Your task to perform on an android device: change the clock style Image 0: 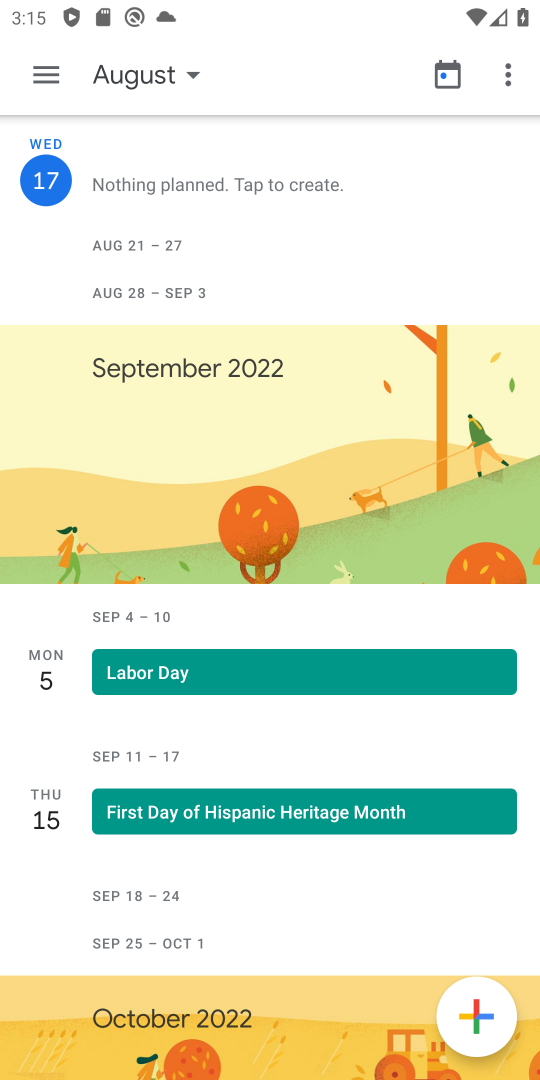
Step 0: press back button
Your task to perform on an android device: change the clock style Image 1: 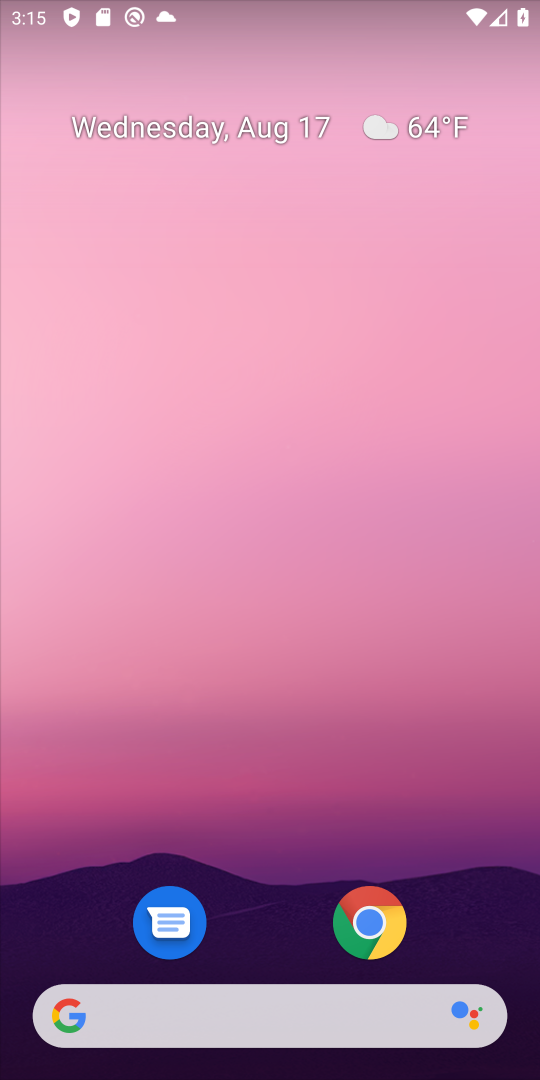
Step 1: drag from (80, 754) to (359, 119)
Your task to perform on an android device: change the clock style Image 2: 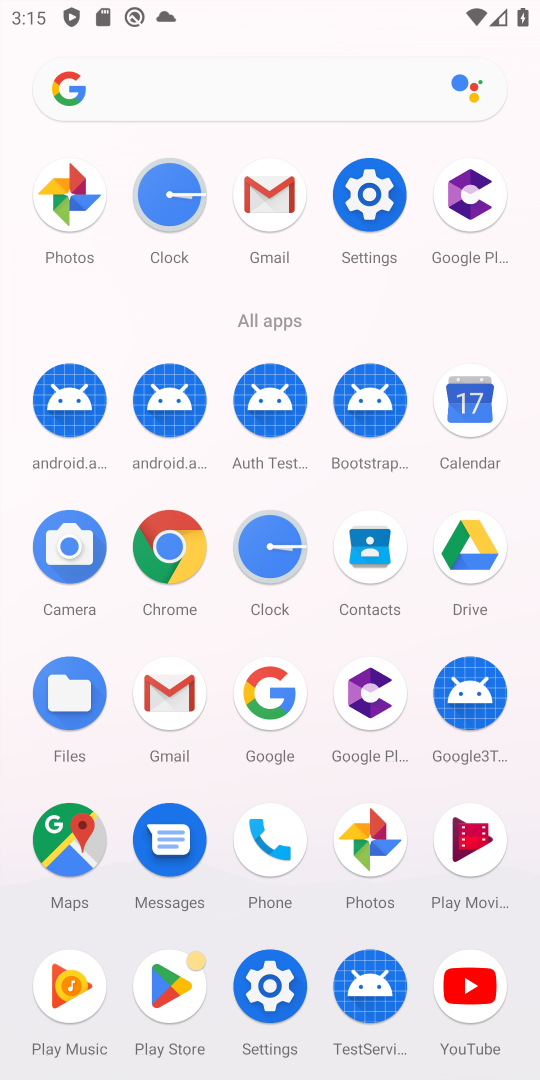
Step 2: click (263, 558)
Your task to perform on an android device: change the clock style Image 3: 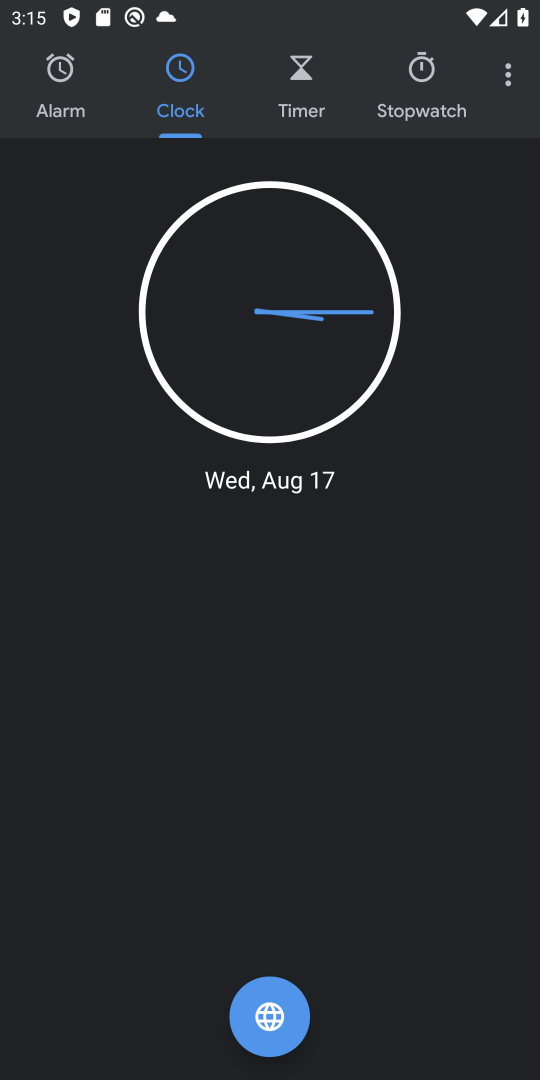
Step 3: click (516, 76)
Your task to perform on an android device: change the clock style Image 4: 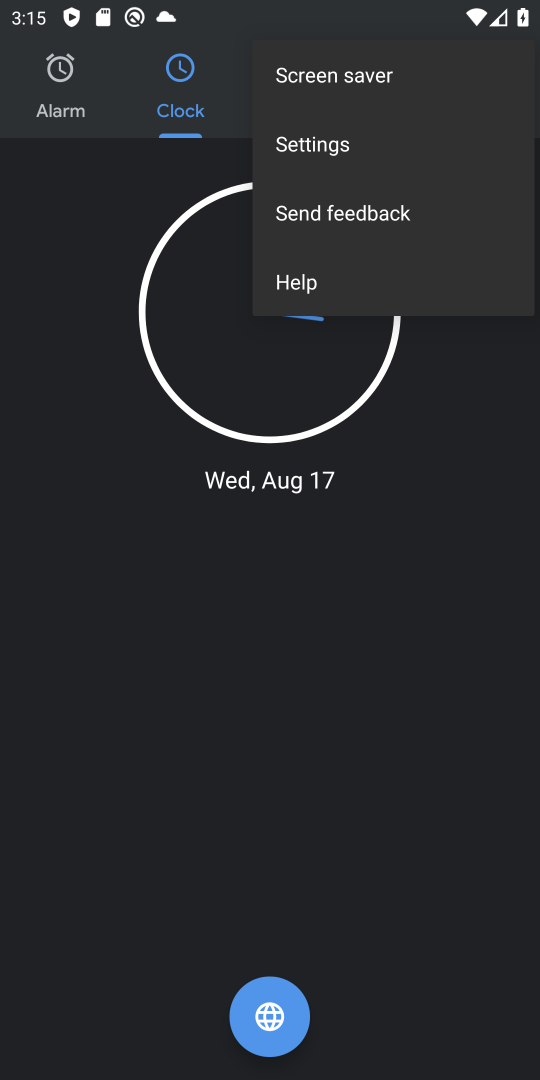
Step 4: click (305, 152)
Your task to perform on an android device: change the clock style Image 5: 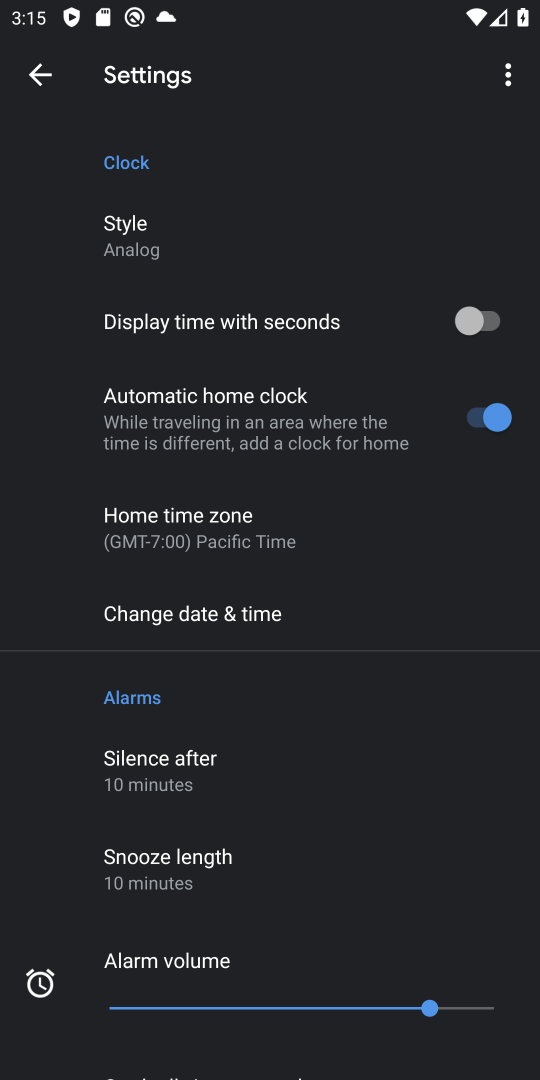
Step 5: click (142, 230)
Your task to perform on an android device: change the clock style Image 6: 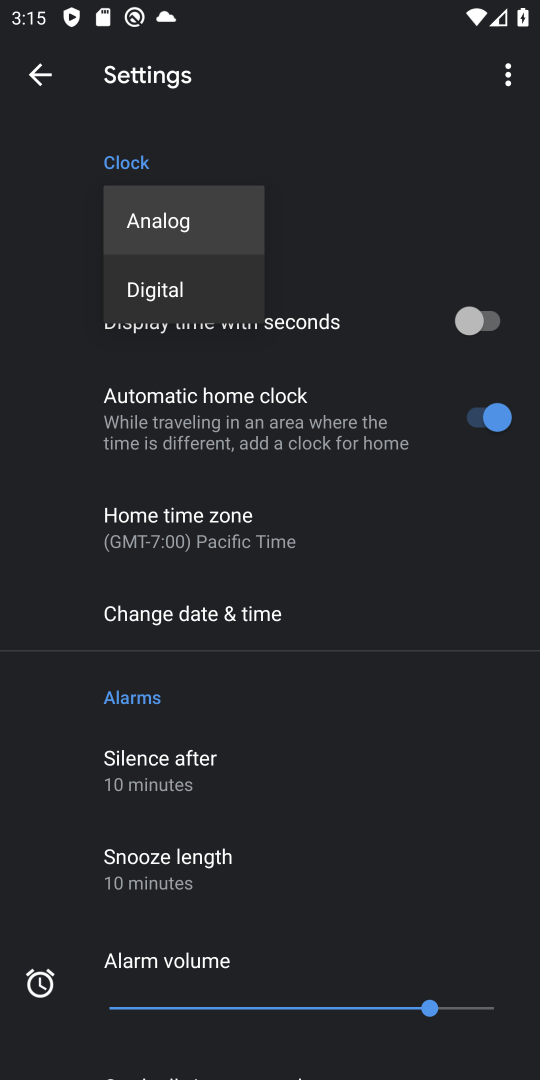
Step 6: click (183, 281)
Your task to perform on an android device: change the clock style Image 7: 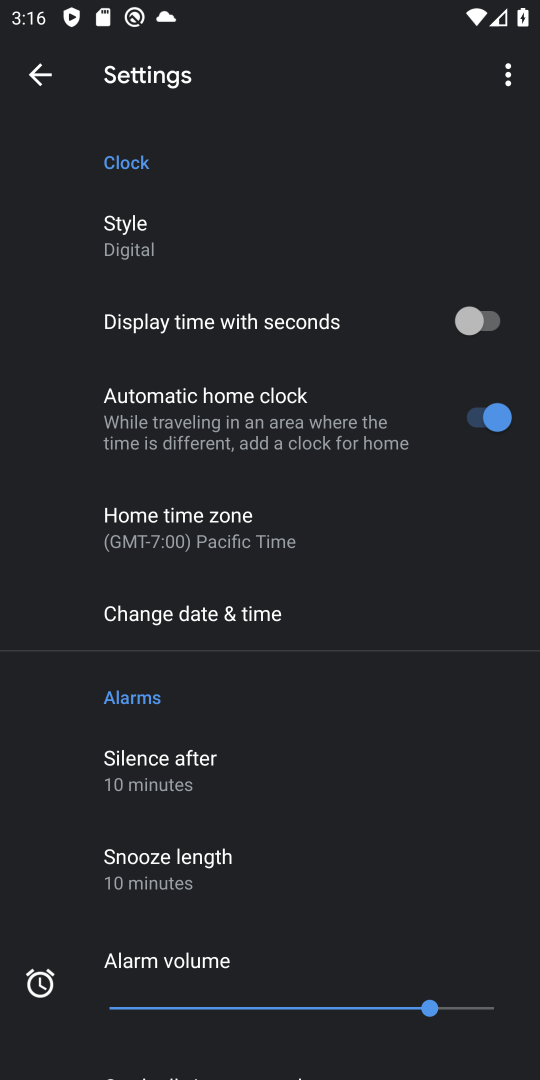
Step 7: task complete